Your task to perform on an android device: Go to internet settings Image 0: 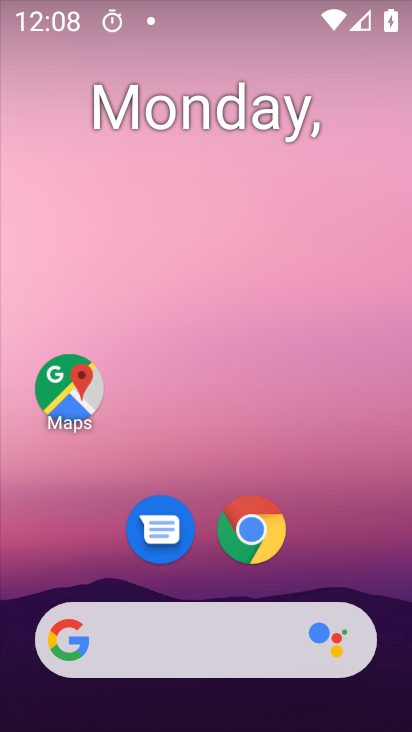
Step 0: drag from (388, 575) to (376, 278)
Your task to perform on an android device: Go to internet settings Image 1: 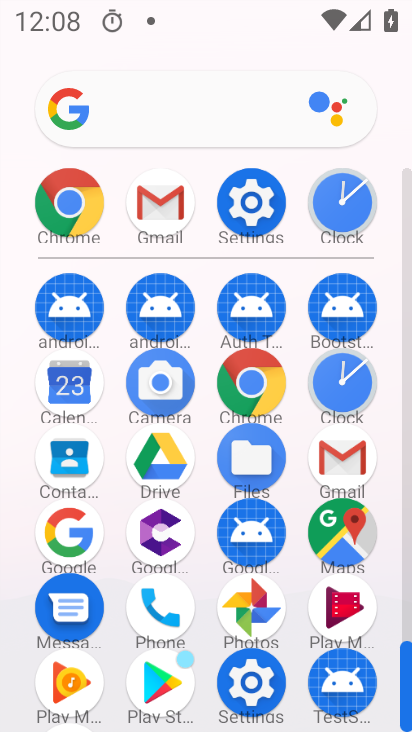
Step 1: click (244, 205)
Your task to perform on an android device: Go to internet settings Image 2: 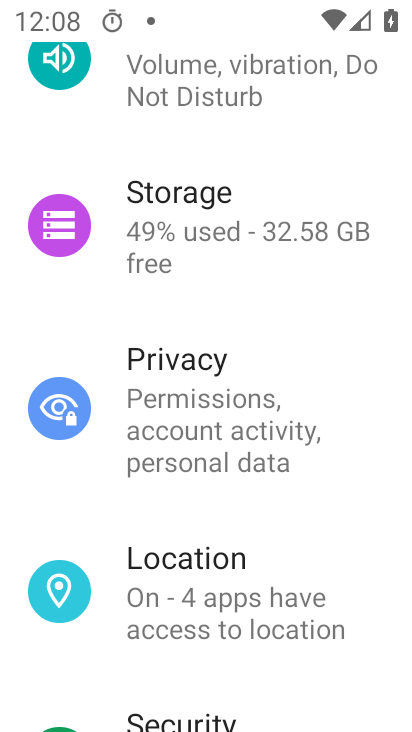
Step 2: drag from (335, 340) to (335, 415)
Your task to perform on an android device: Go to internet settings Image 3: 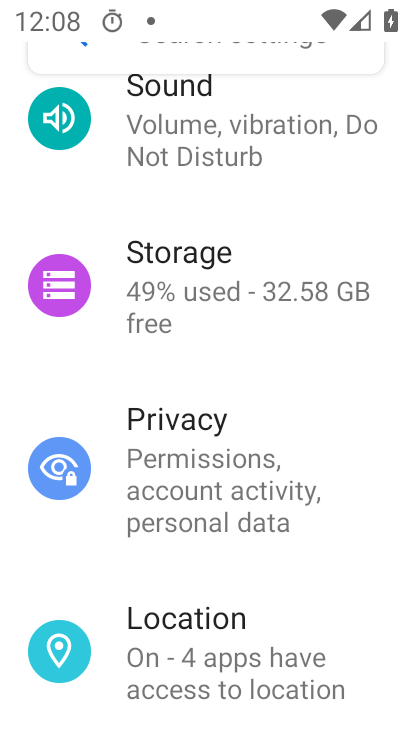
Step 3: drag from (347, 365) to (353, 442)
Your task to perform on an android device: Go to internet settings Image 4: 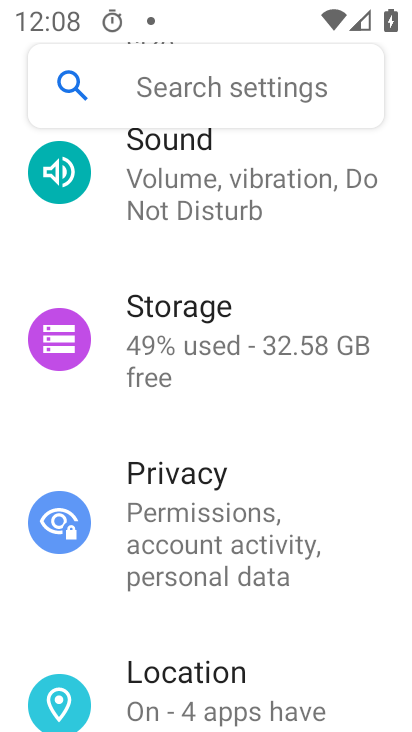
Step 4: drag from (383, 326) to (384, 405)
Your task to perform on an android device: Go to internet settings Image 5: 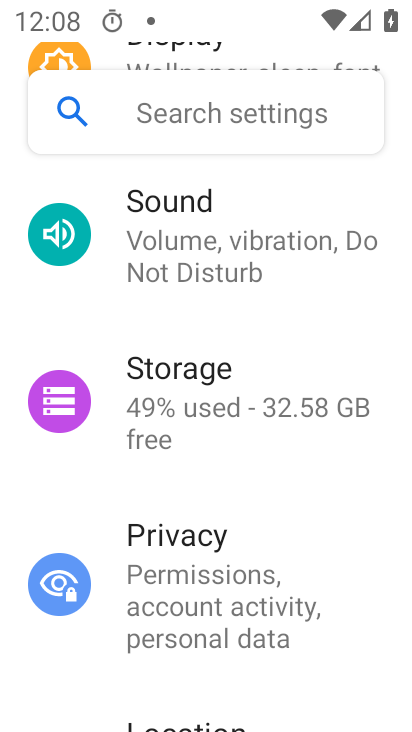
Step 5: drag from (386, 311) to (382, 390)
Your task to perform on an android device: Go to internet settings Image 6: 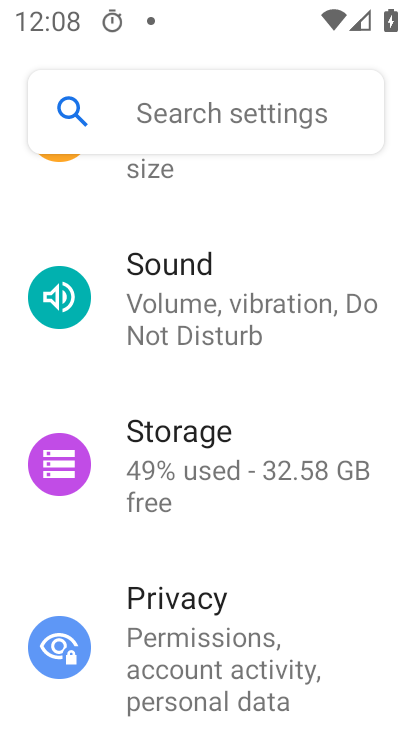
Step 6: drag from (383, 291) to (380, 367)
Your task to perform on an android device: Go to internet settings Image 7: 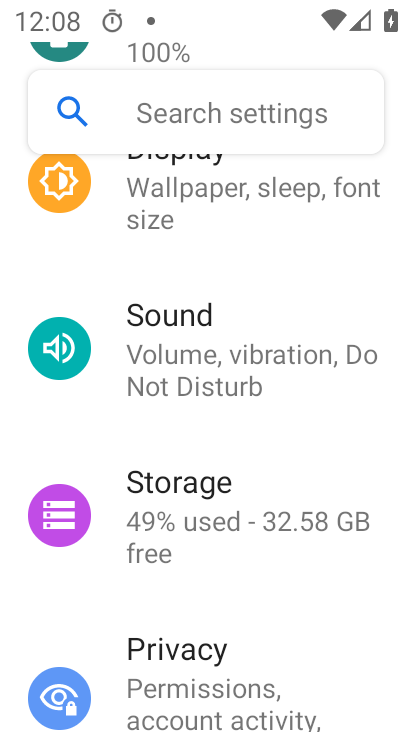
Step 7: drag from (383, 291) to (382, 370)
Your task to perform on an android device: Go to internet settings Image 8: 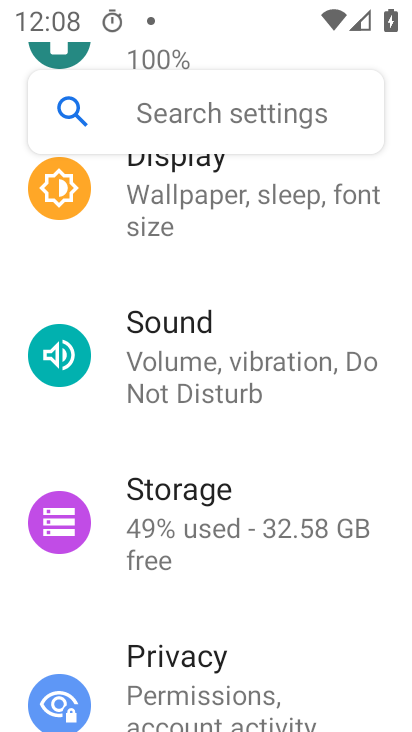
Step 8: drag from (380, 258) to (376, 365)
Your task to perform on an android device: Go to internet settings Image 9: 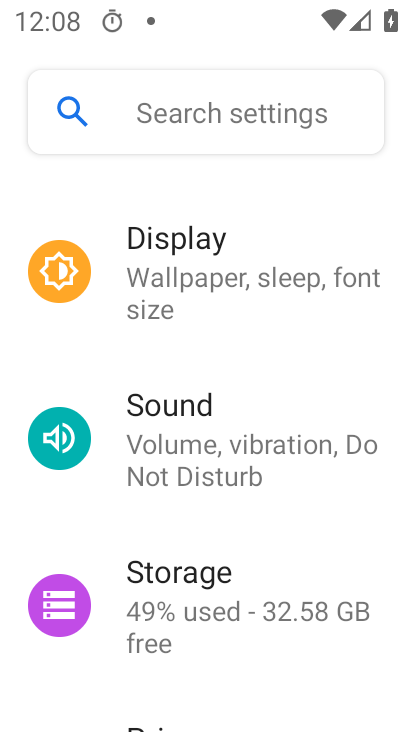
Step 9: drag from (388, 221) to (386, 309)
Your task to perform on an android device: Go to internet settings Image 10: 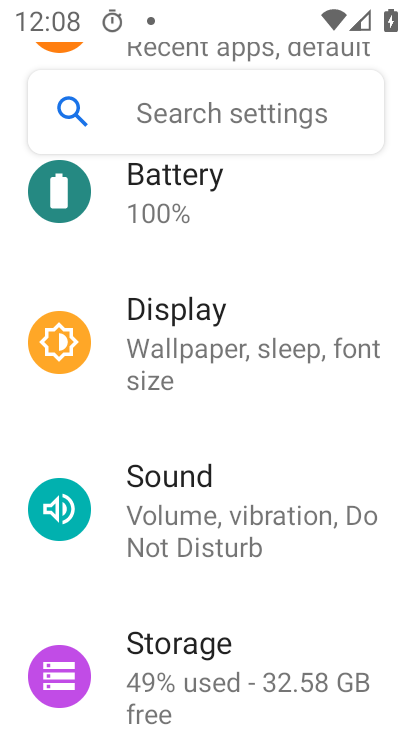
Step 10: drag from (383, 211) to (379, 296)
Your task to perform on an android device: Go to internet settings Image 11: 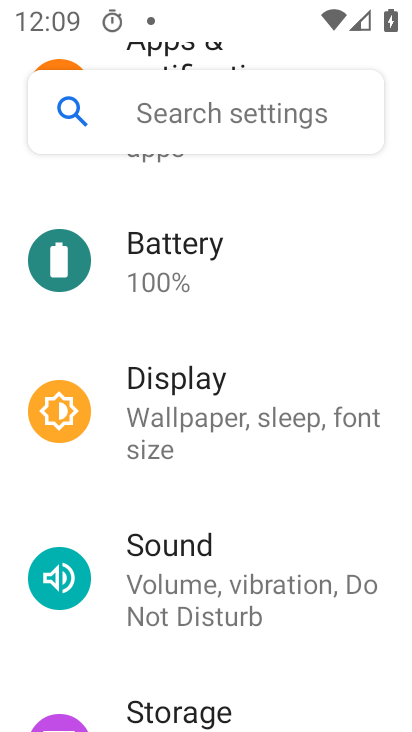
Step 11: drag from (375, 200) to (362, 293)
Your task to perform on an android device: Go to internet settings Image 12: 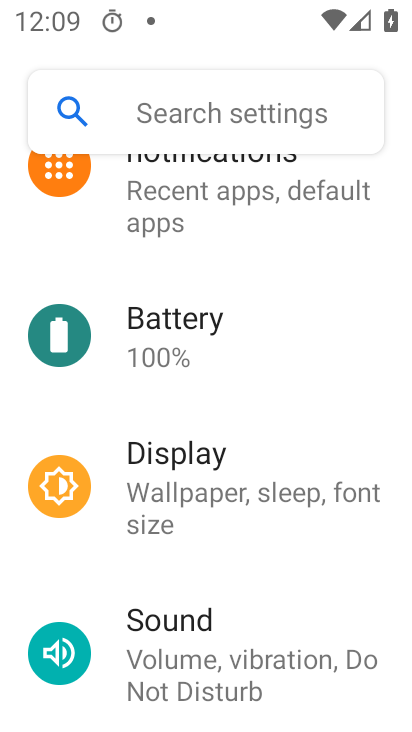
Step 12: drag from (382, 179) to (380, 295)
Your task to perform on an android device: Go to internet settings Image 13: 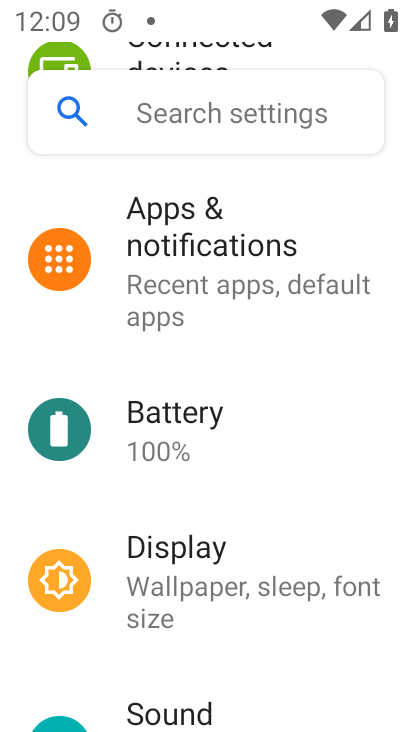
Step 13: drag from (385, 209) to (382, 330)
Your task to perform on an android device: Go to internet settings Image 14: 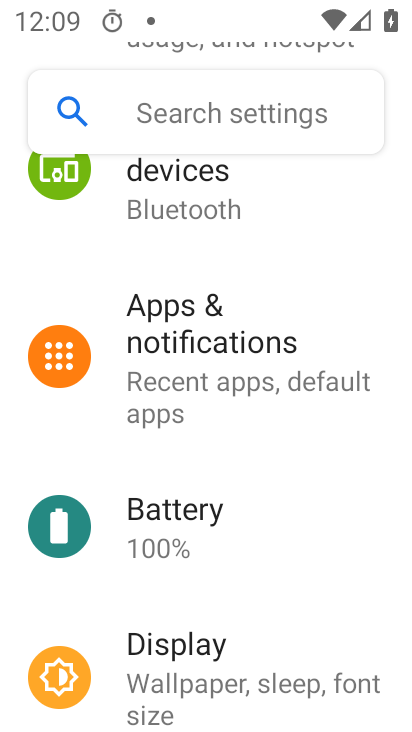
Step 14: drag from (382, 200) to (381, 320)
Your task to perform on an android device: Go to internet settings Image 15: 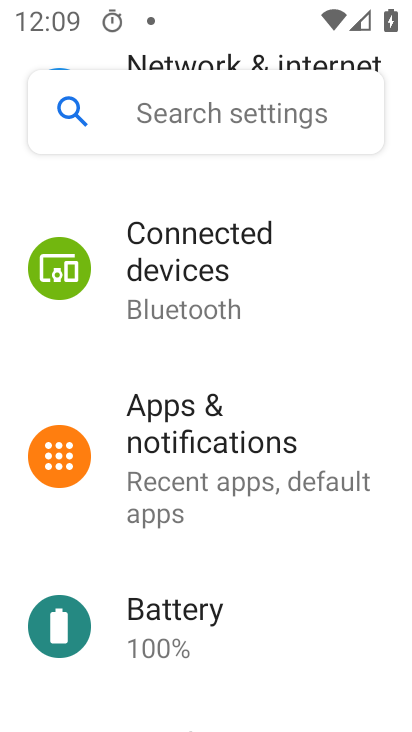
Step 15: drag from (380, 186) to (367, 314)
Your task to perform on an android device: Go to internet settings Image 16: 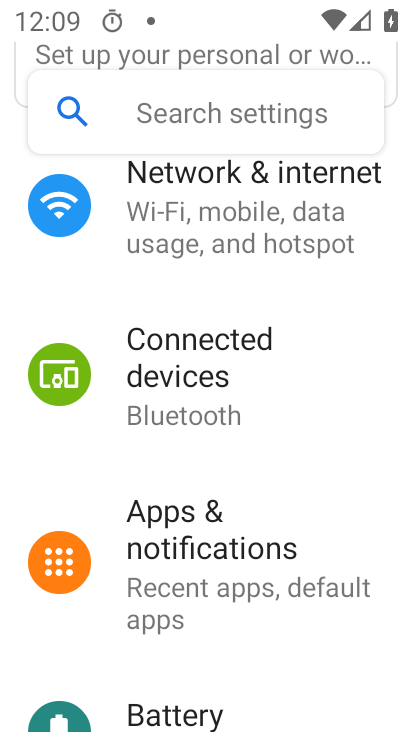
Step 16: drag from (379, 191) to (376, 310)
Your task to perform on an android device: Go to internet settings Image 17: 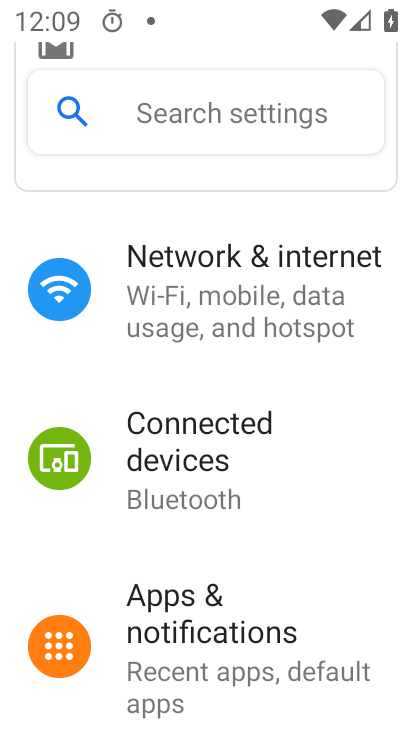
Step 17: click (327, 302)
Your task to perform on an android device: Go to internet settings Image 18: 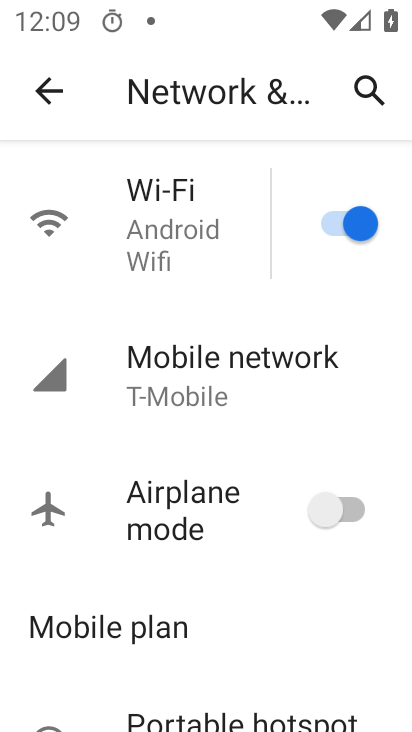
Step 18: task complete